Your task to perform on an android device: choose inbox layout in the gmail app Image 0: 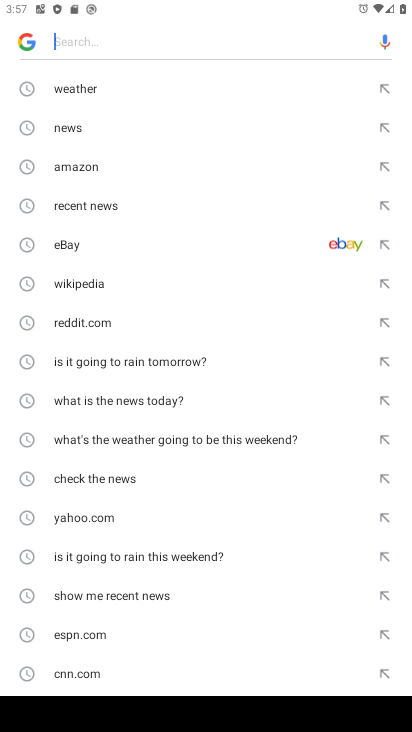
Step 0: press home button
Your task to perform on an android device: choose inbox layout in the gmail app Image 1: 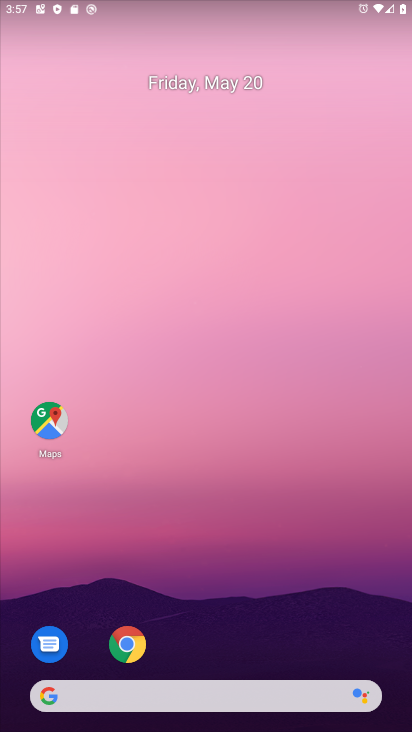
Step 1: drag from (315, 659) to (209, 15)
Your task to perform on an android device: choose inbox layout in the gmail app Image 2: 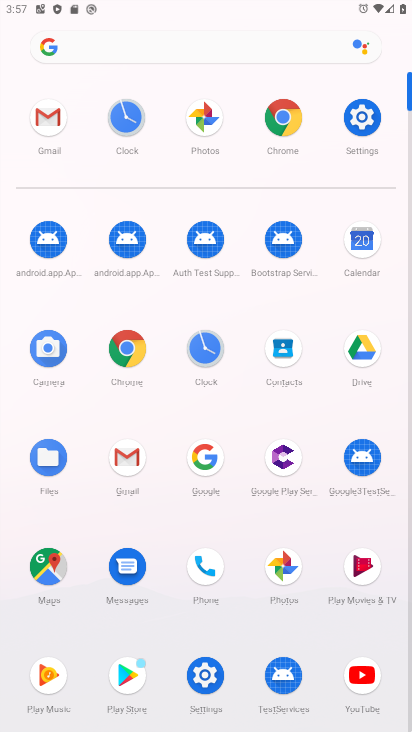
Step 2: click (34, 149)
Your task to perform on an android device: choose inbox layout in the gmail app Image 3: 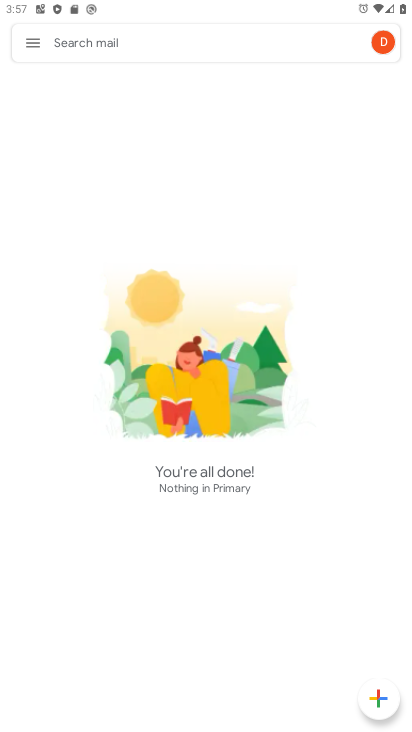
Step 3: click (48, 52)
Your task to perform on an android device: choose inbox layout in the gmail app Image 4: 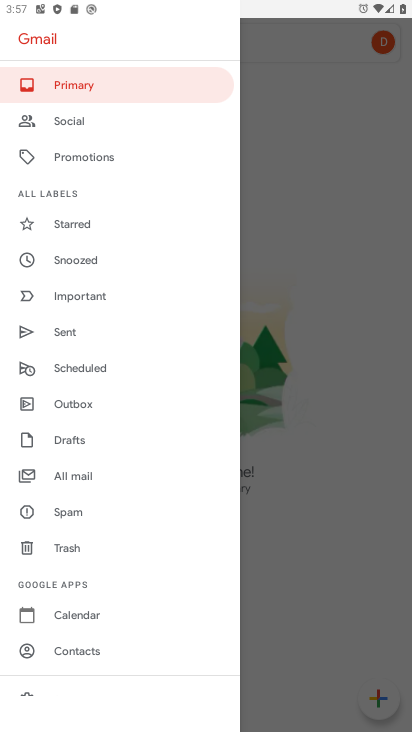
Step 4: drag from (88, 133) to (66, 235)
Your task to perform on an android device: choose inbox layout in the gmail app Image 5: 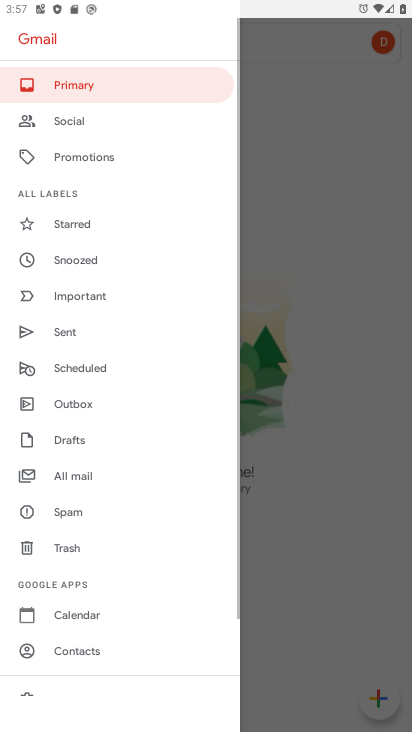
Step 5: click (75, 92)
Your task to perform on an android device: choose inbox layout in the gmail app Image 6: 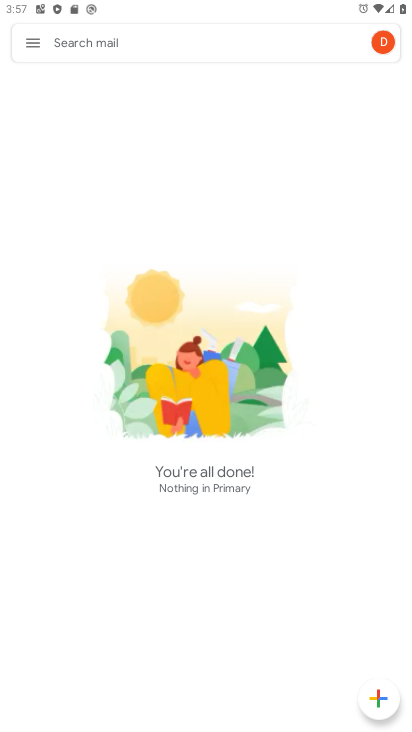
Step 6: task complete